Your task to perform on an android device: turn pop-ups on in chrome Image 0: 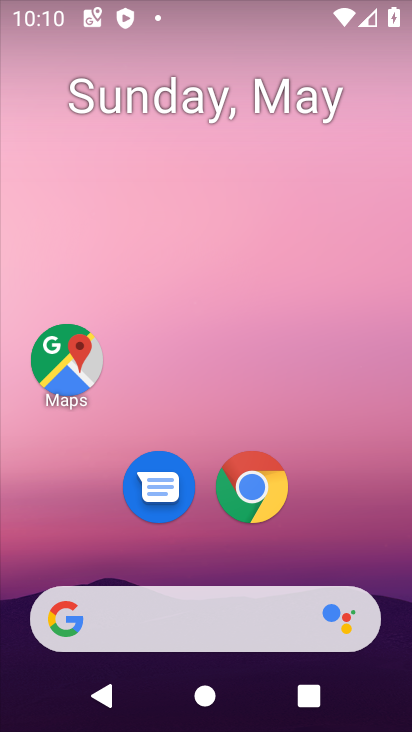
Step 0: drag from (390, 551) to (347, 183)
Your task to perform on an android device: turn pop-ups on in chrome Image 1: 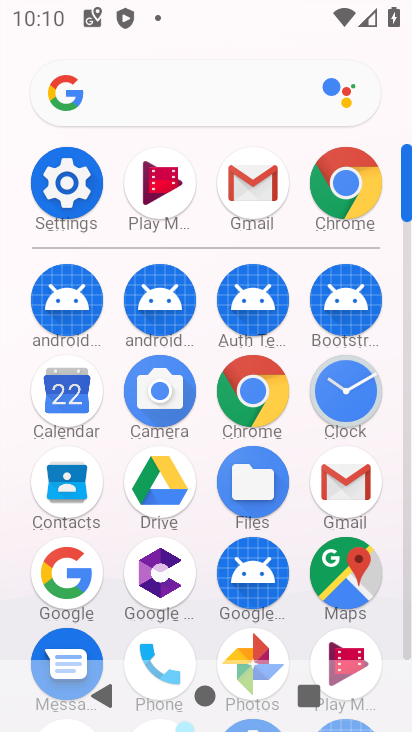
Step 1: click (262, 405)
Your task to perform on an android device: turn pop-ups on in chrome Image 2: 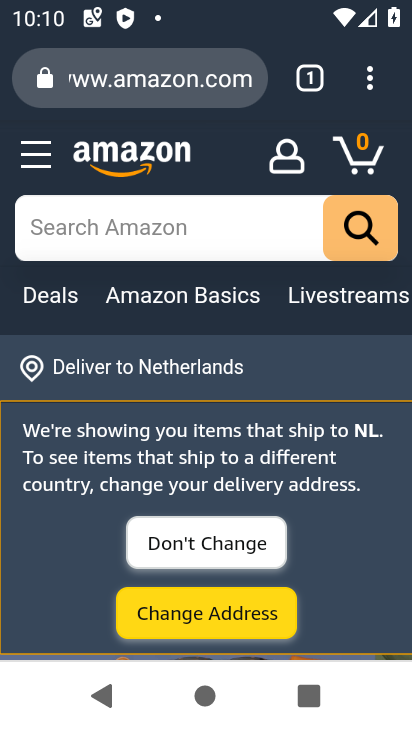
Step 2: click (373, 88)
Your task to perform on an android device: turn pop-ups on in chrome Image 3: 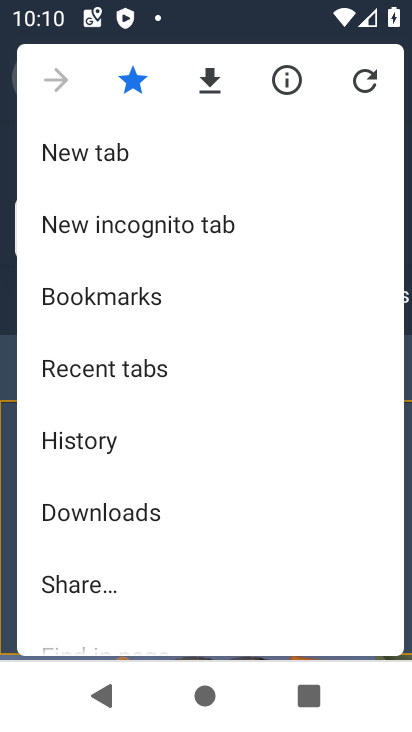
Step 3: drag from (286, 514) to (270, 353)
Your task to perform on an android device: turn pop-ups on in chrome Image 4: 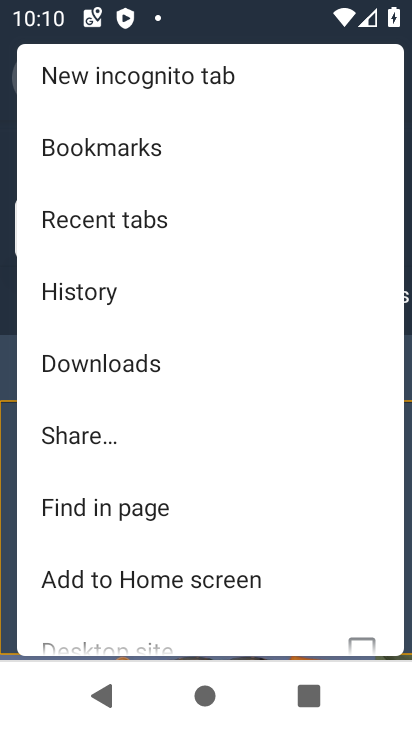
Step 4: drag from (281, 546) to (262, 368)
Your task to perform on an android device: turn pop-ups on in chrome Image 5: 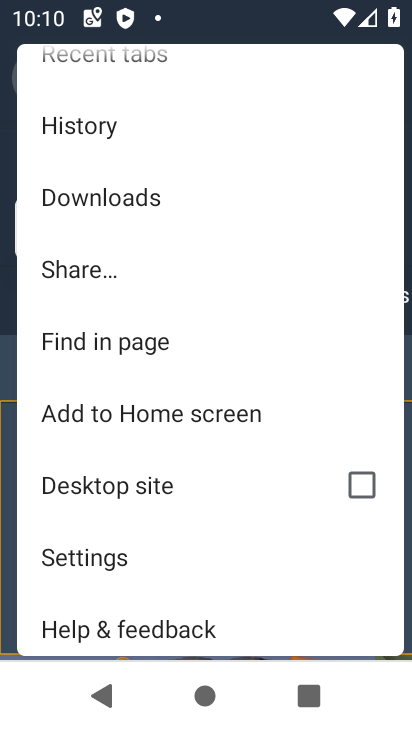
Step 5: drag from (255, 561) to (239, 374)
Your task to perform on an android device: turn pop-ups on in chrome Image 6: 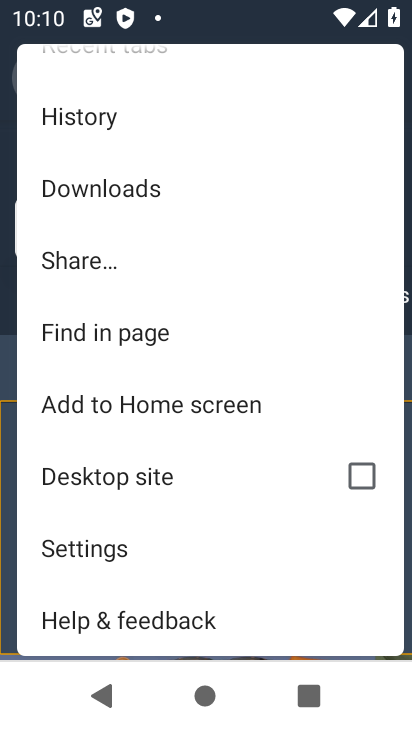
Step 6: click (107, 549)
Your task to perform on an android device: turn pop-ups on in chrome Image 7: 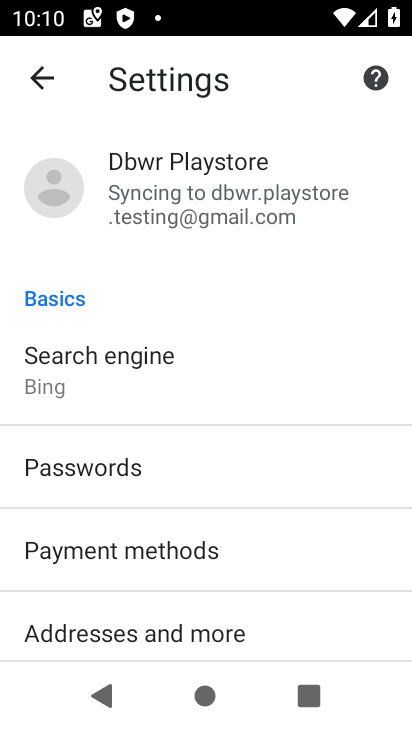
Step 7: drag from (312, 614) to (288, 448)
Your task to perform on an android device: turn pop-ups on in chrome Image 8: 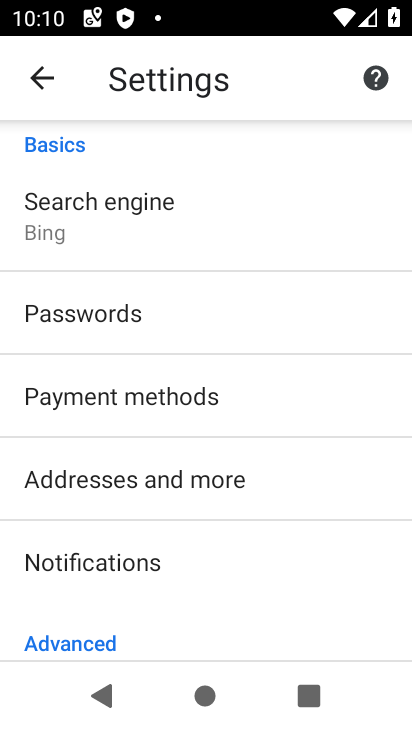
Step 8: drag from (287, 574) to (275, 437)
Your task to perform on an android device: turn pop-ups on in chrome Image 9: 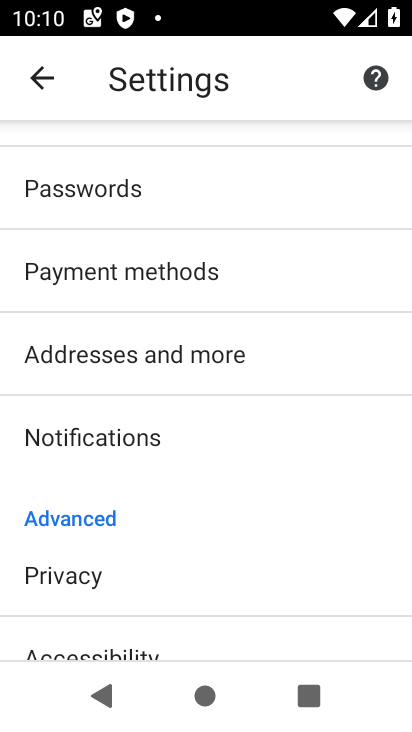
Step 9: drag from (293, 571) to (284, 437)
Your task to perform on an android device: turn pop-ups on in chrome Image 10: 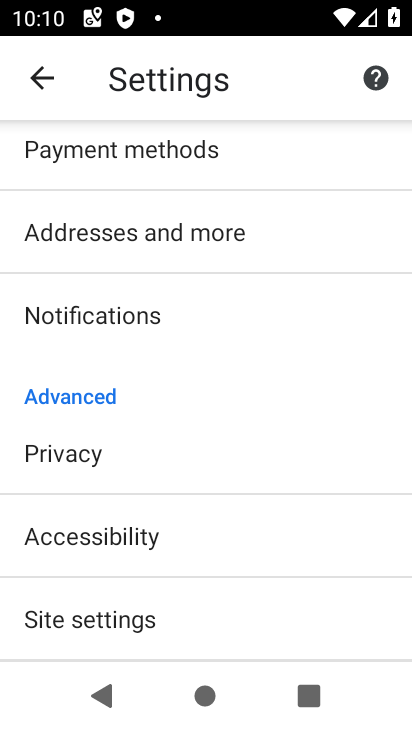
Step 10: drag from (291, 569) to (278, 438)
Your task to perform on an android device: turn pop-ups on in chrome Image 11: 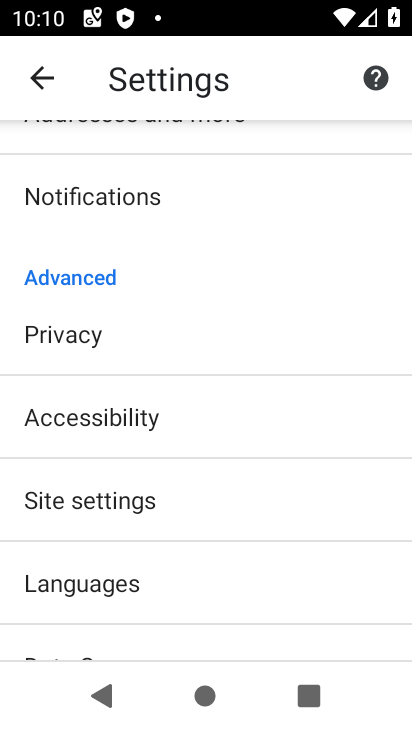
Step 11: drag from (293, 597) to (288, 492)
Your task to perform on an android device: turn pop-ups on in chrome Image 12: 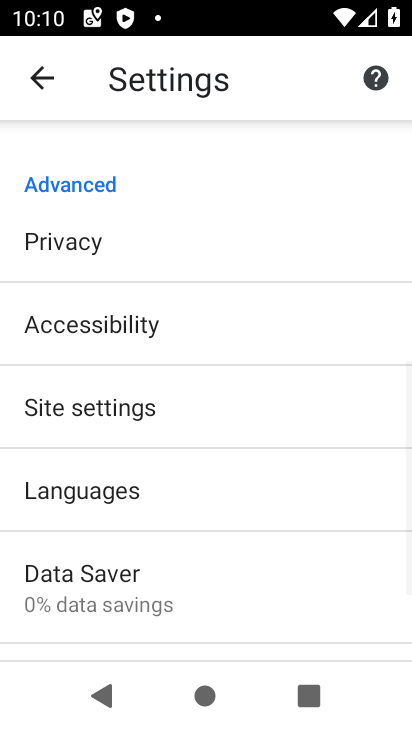
Step 12: drag from (304, 634) to (297, 460)
Your task to perform on an android device: turn pop-ups on in chrome Image 13: 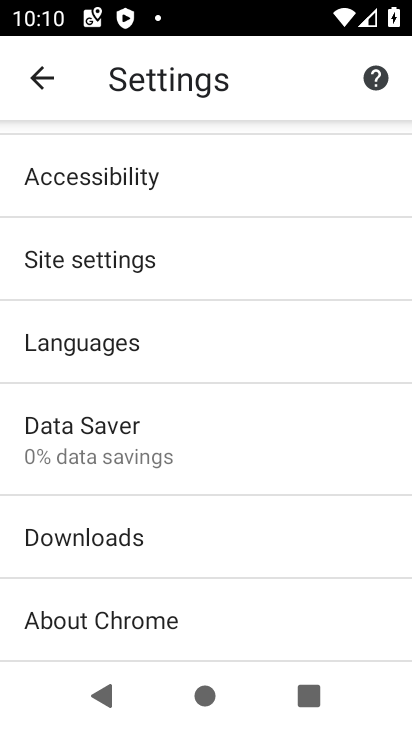
Step 13: drag from (353, 609) to (338, 456)
Your task to perform on an android device: turn pop-ups on in chrome Image 14: 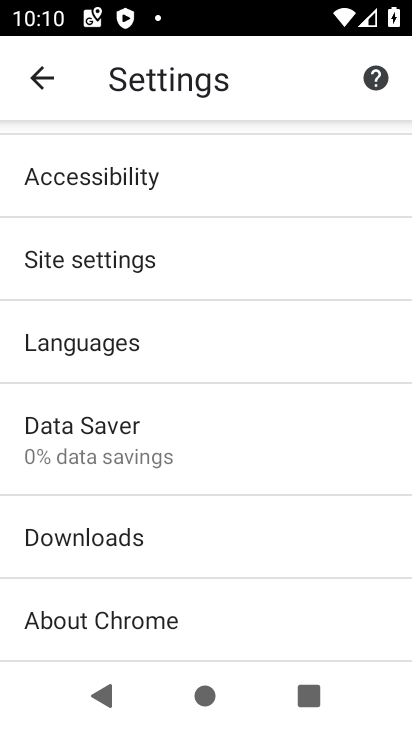
Step 14: drag from (307, 351) to (292, 458)
Your task to perform on an android device: turn pop-ups on in chrome Image 15: 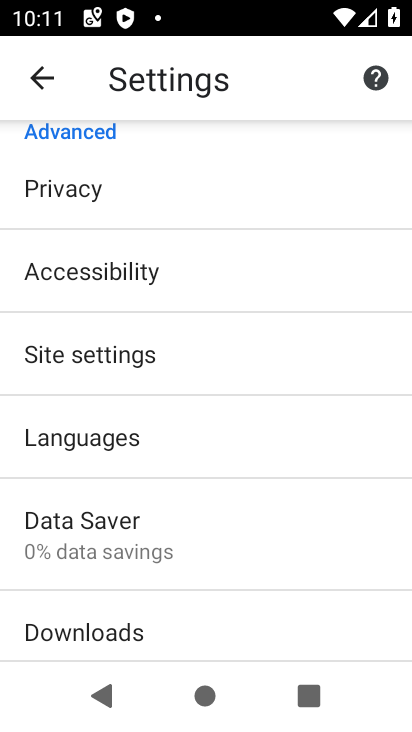
Step 15: drag from (292, 338) to (287, 449)
Your task to perform on an android device: turn pop-ups on in chrome Image 16: 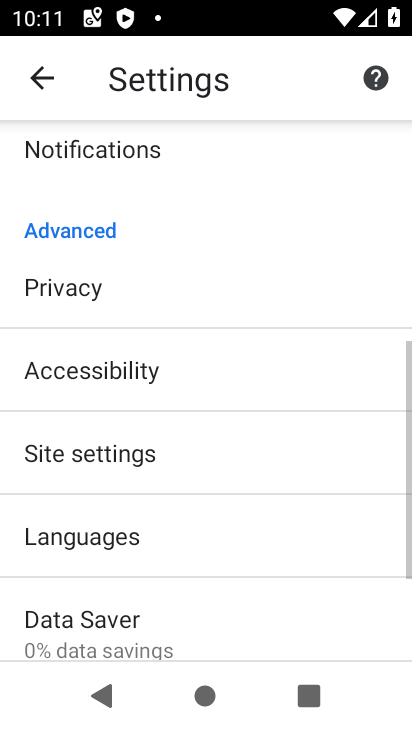
Step 16: click (223, 439)
Your task to perform on an android device: turn pop-ups on in chrome Image 17: 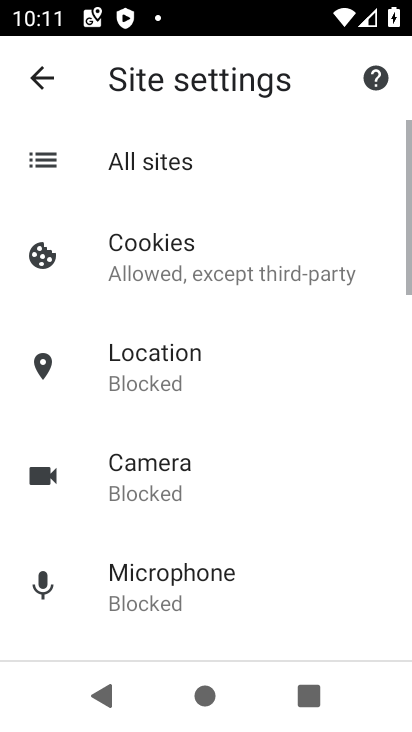
Step 17: drag from (287, 564) to (282, 471)
Your task to perform on an android device: turn pop-ups on in chrome Image 18: 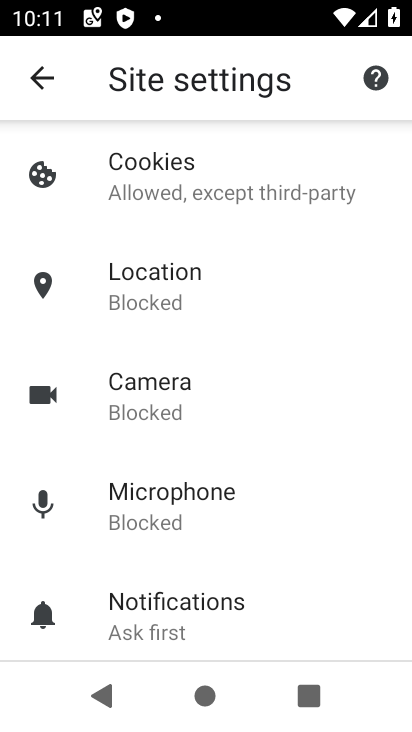
Step 18: drag from (287, 597) to (291, 501)
Your task to perform on an android device: turn pop-ups on in chrome Image 19: 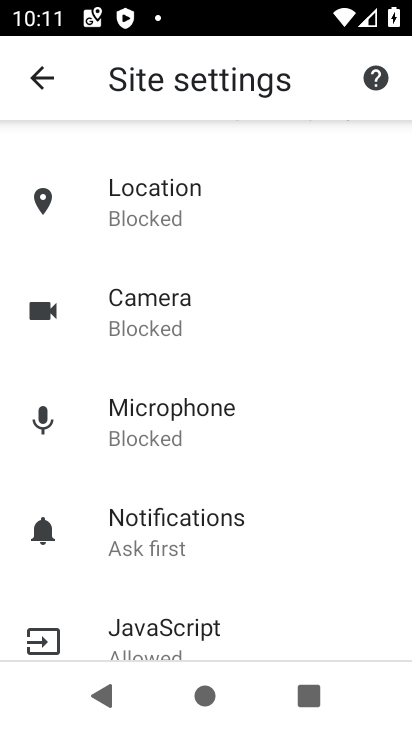
Step 19: drag from (284, 599) to (292, 455)
Your task to perform on an android device: turn pop-ups on in chrome Image 20: 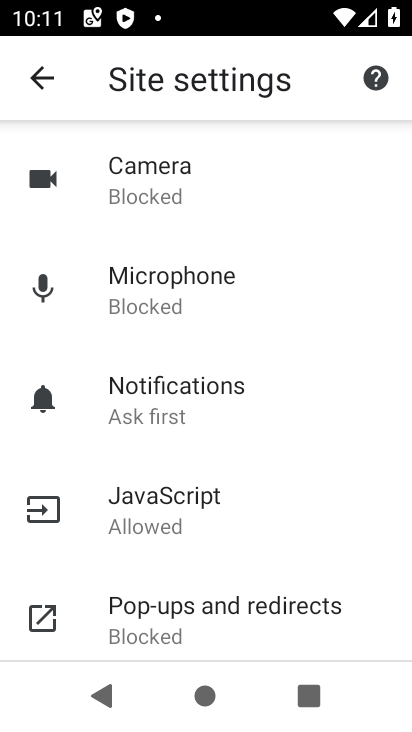
Step 20: drag from (309, 575) to (312, 464)
Your task to perform on an android device: turn pop-ups on in chrome Image 21: 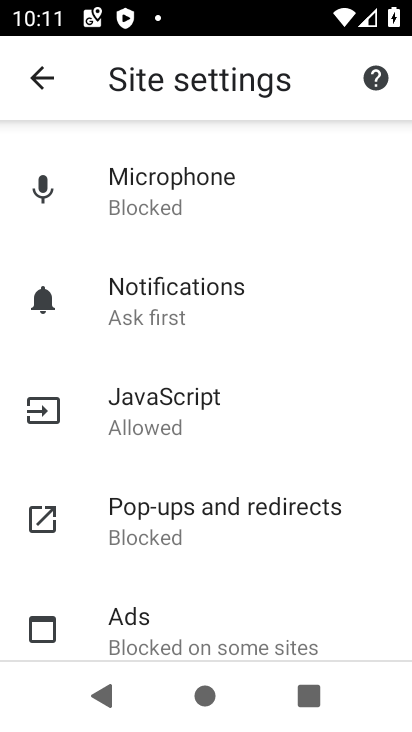
Step 21: click (266, 533)
Your task to perform on an android device: turn pop-ups on in chrome Image 22: 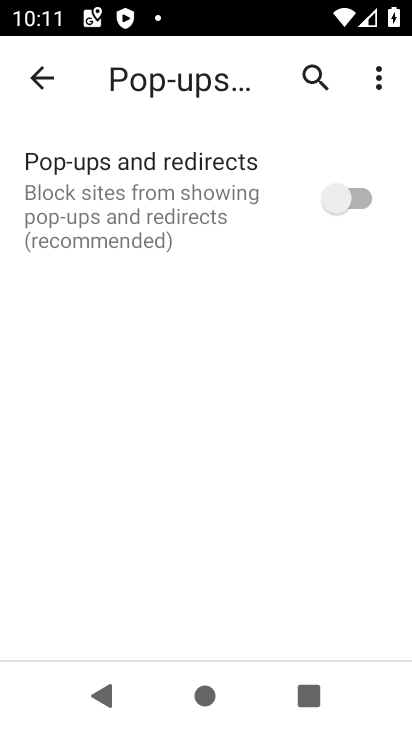
Step 22: click (335, 207)
Your task to perform on an android device: turn pop-ups on in chrome Image 23: 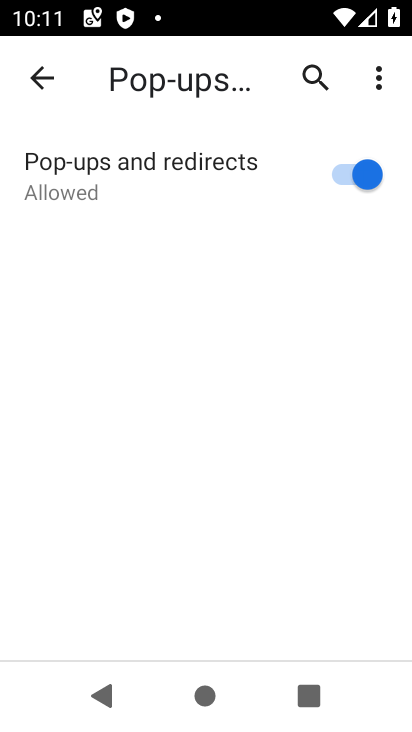
Step 23: task complete